Your task to perform on an android device: What is the average speed of a car? Image 0: 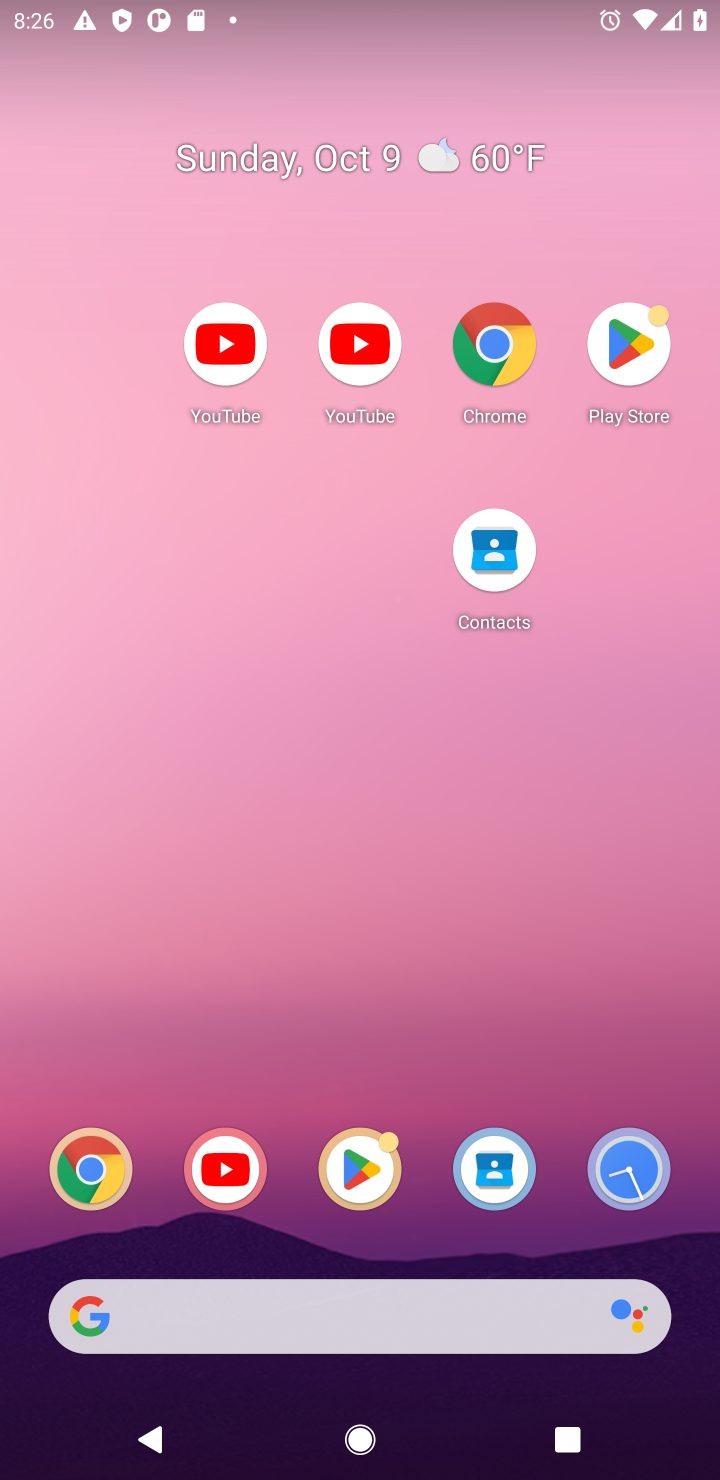
Step 0: drag from (419, 1154) to (395, 162)
Your task to perform on an android device: What is the average speed of a car? Image 1: 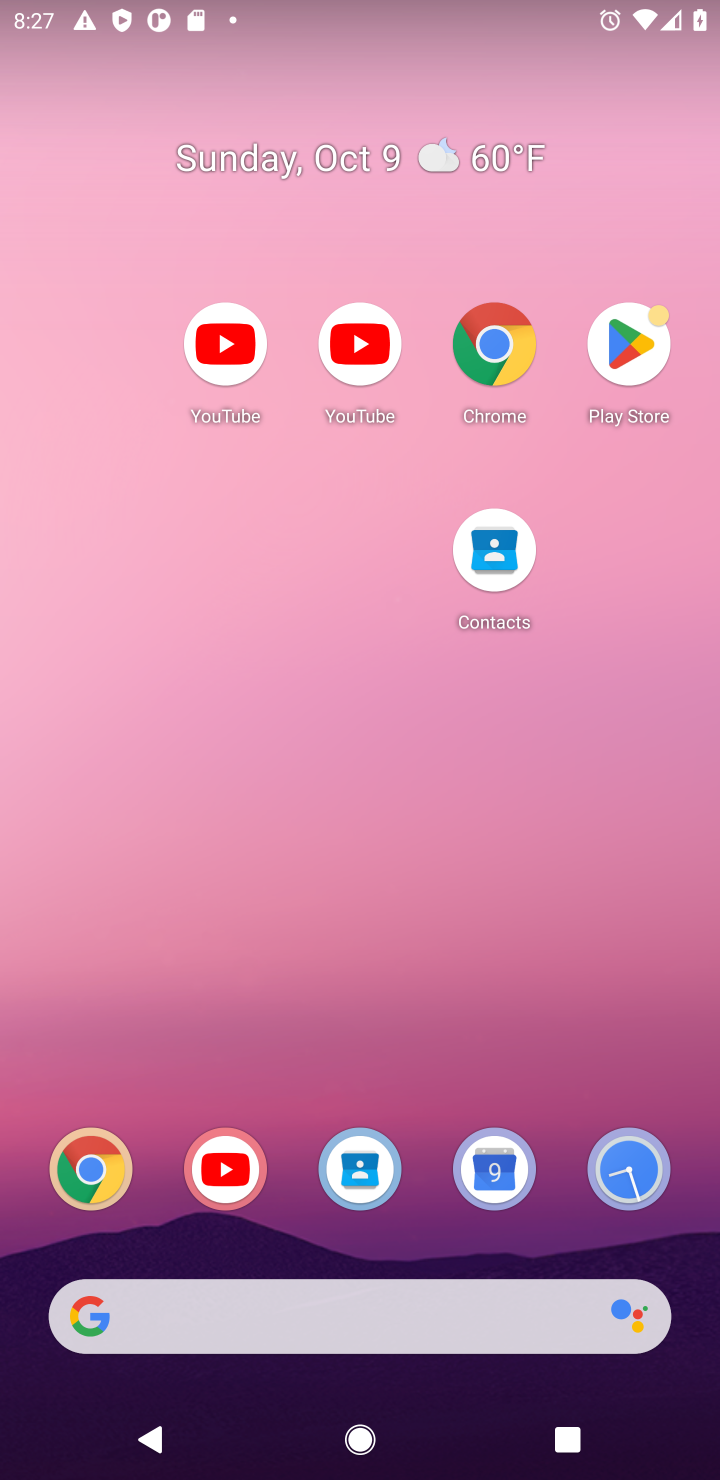
Step 1: drag from (283, 1262) to (267, 91)
Your task to perform on an android device: What is the average speed of a car? Image 2: 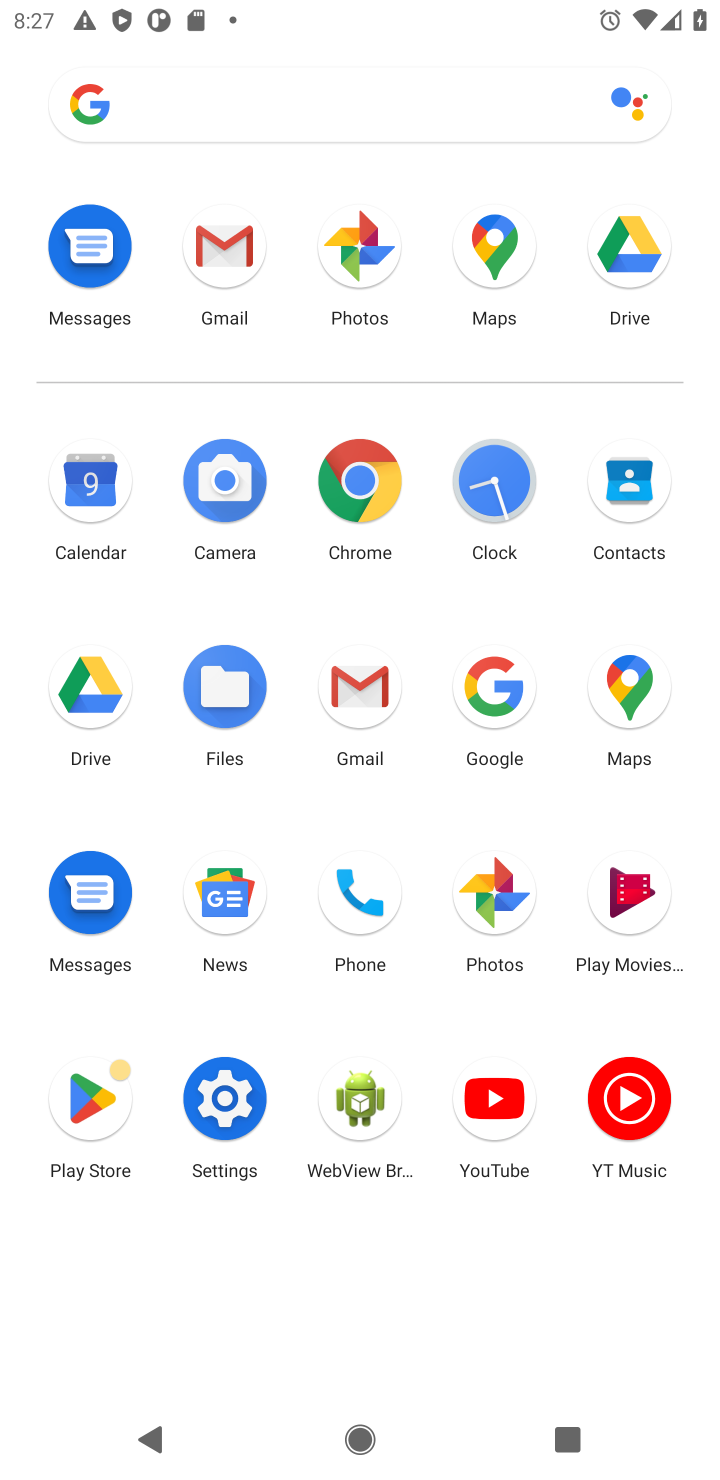
Step 2: click (356, 482)
Your task to perform on an android device: What is the average speed of a car? Image 3: 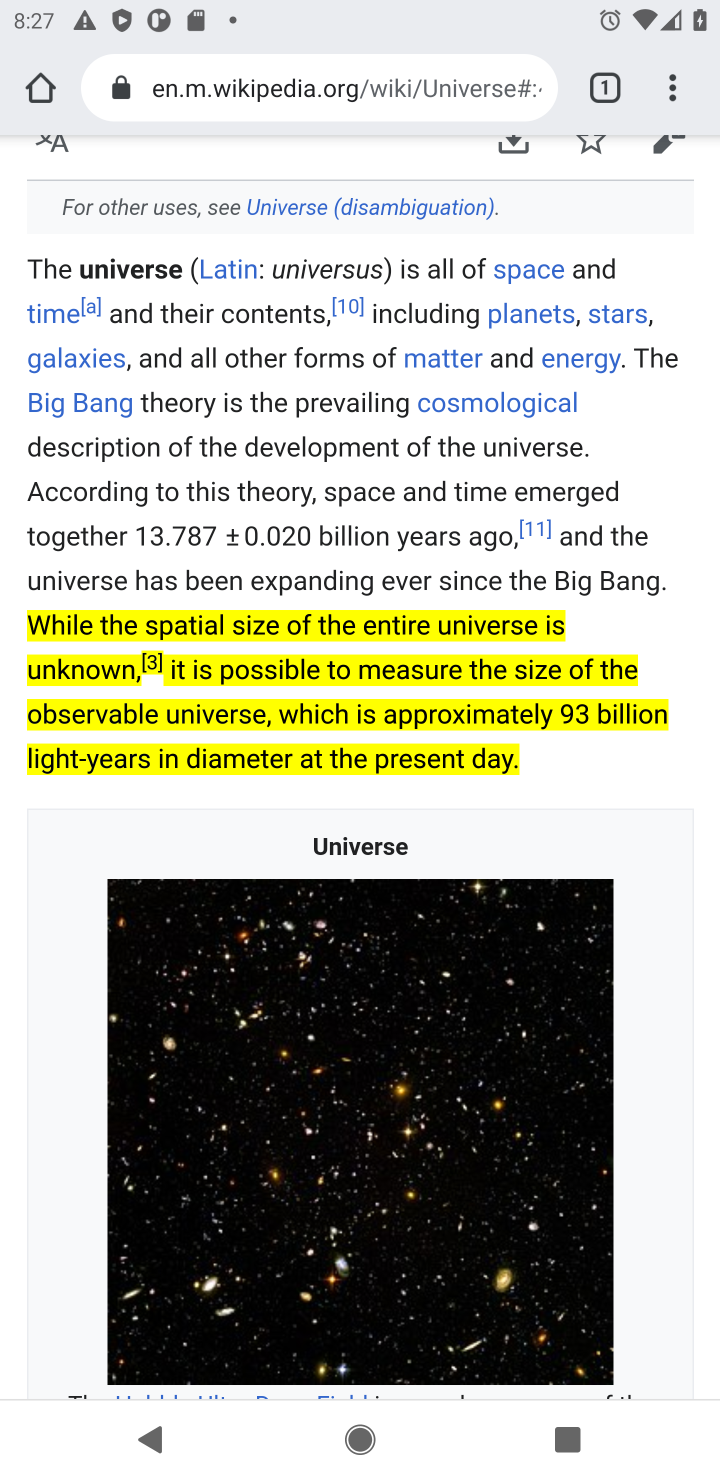
Step 3: click (320, 81)
Your task to perform on an android device: What is the average speed of a car? Image 4: 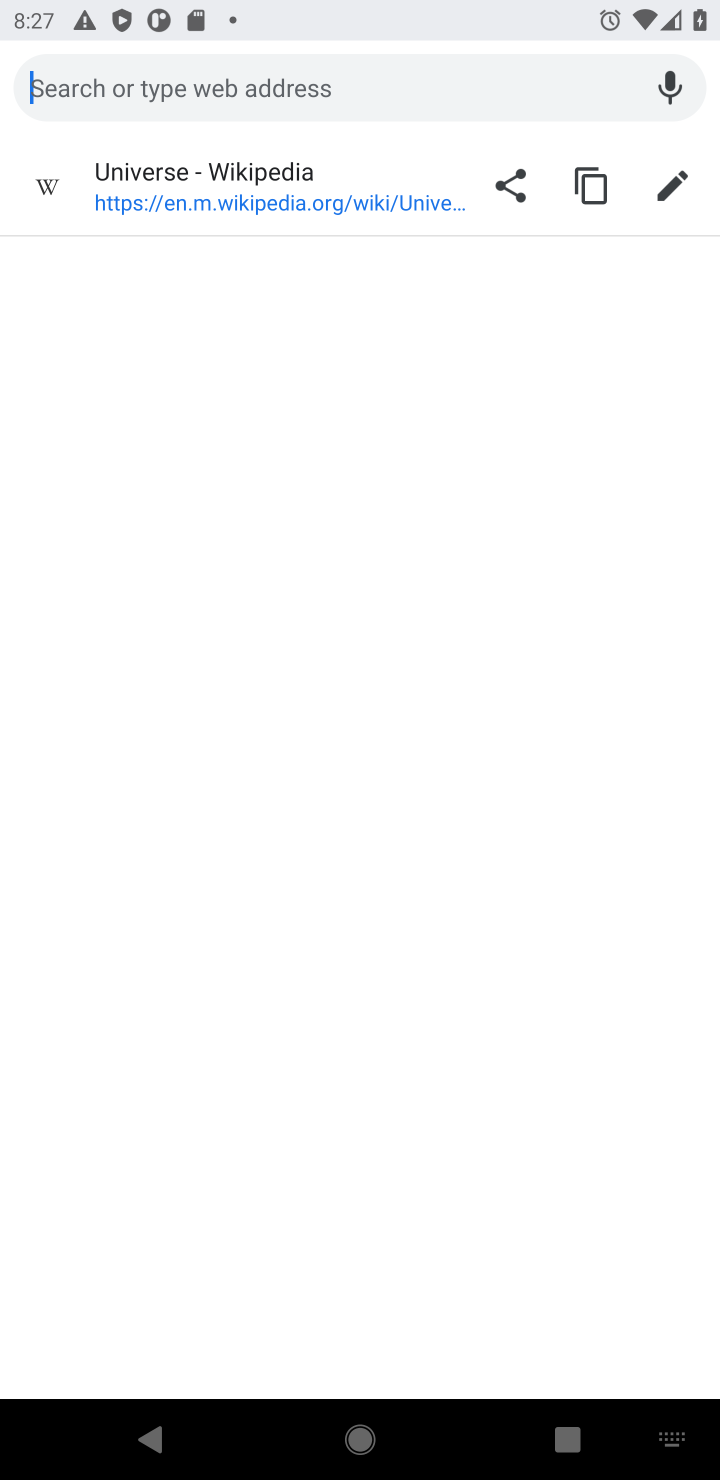
Step 4: type "what is the average speed of a car?"
Your task to perform on an android device: What is the average speed of a car? Image 5: 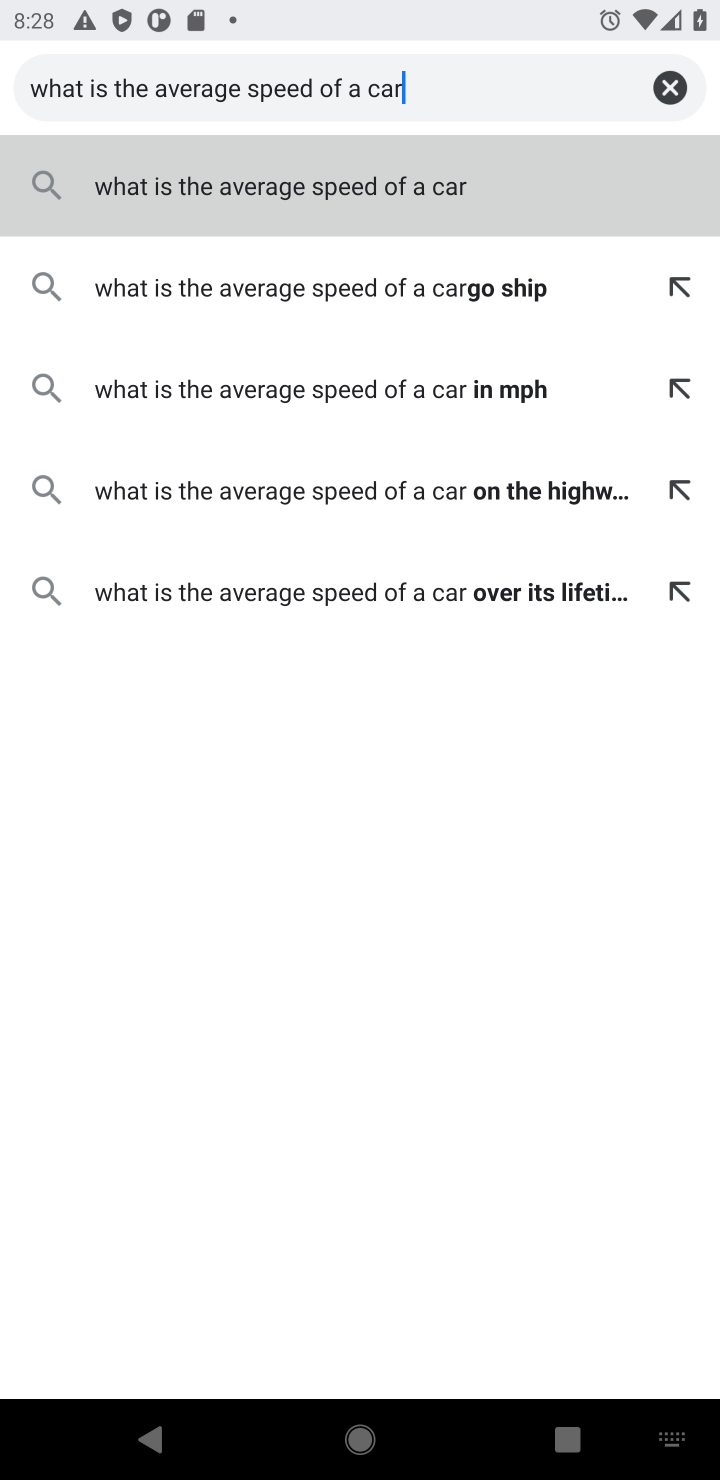
Step 5: press enter
Your task to perform on an android device: What is the average speed of a car? Image 6: 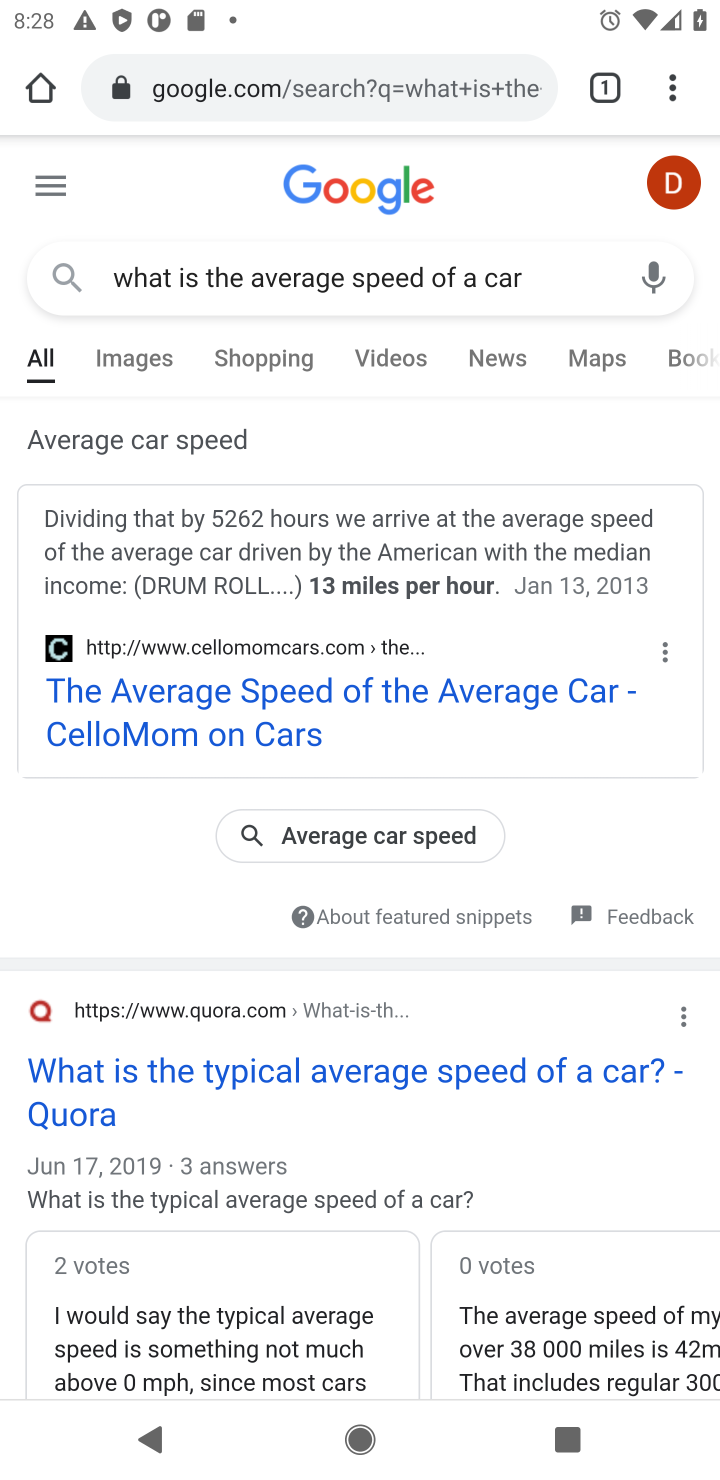
Step 6: click (210, 700)
Your task to perform on an android device: What is the average speed of a car? Image 7: 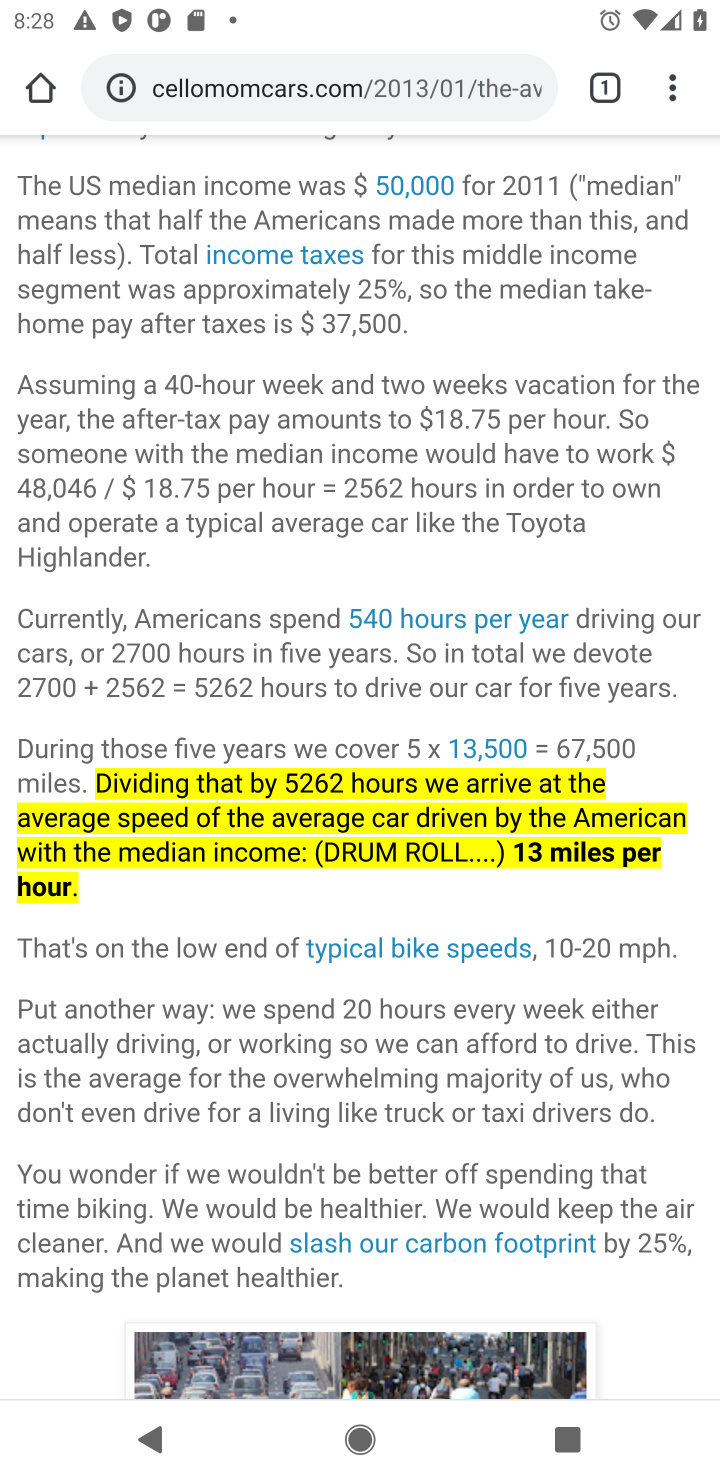
Step 7: task complete